Your task to perform on an android device: Open calendar and show me the fourth week of next month Image 0: 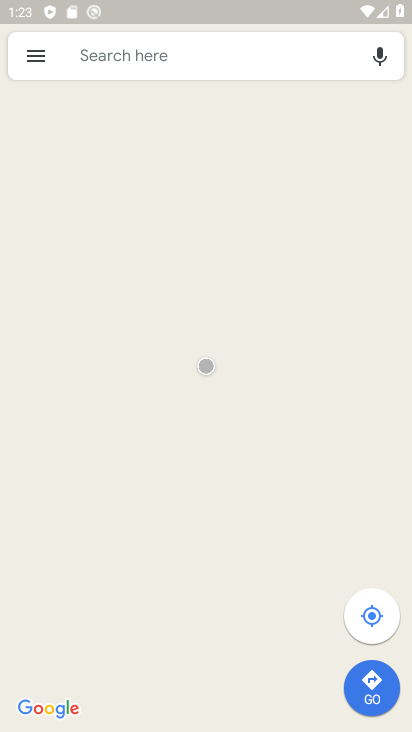
Step 0: press back button
Your task to perform on an android device: Open calendar and show me the fourth week of next month Image 1: 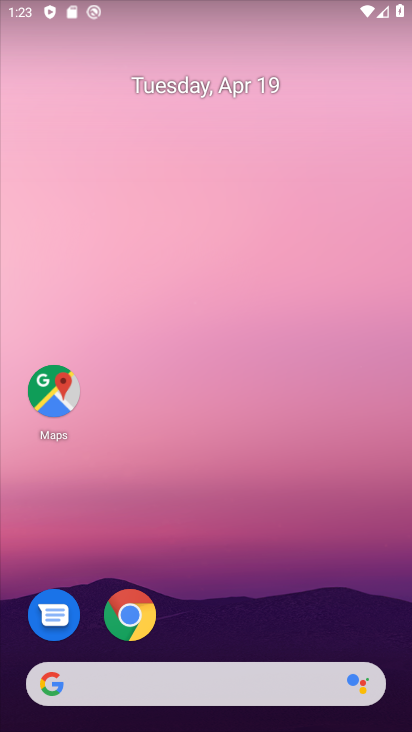
Step 1: drag from (190, 656) to (348, 56)
Your task to perform on an android device: Open calendar and show me the fourth week of next month Image 2: 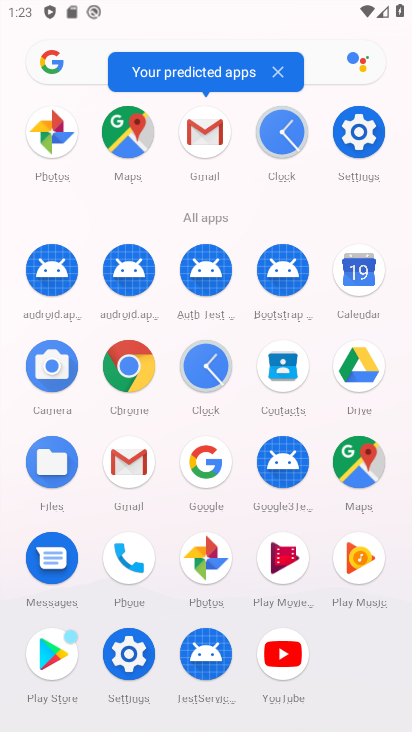
Step 2: click (363, 272)
Your task to perform on an android device: Open calendar and show me the fourth week of next month Image 3: 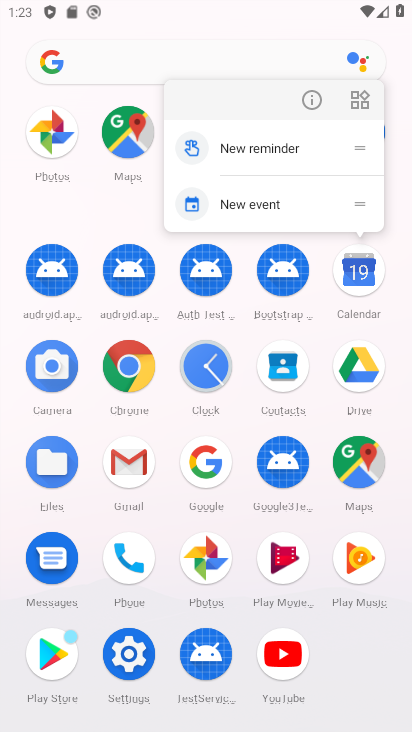
Step 3: click (352, 290)
Your task to perform on an android device: Open calendar and show me the fourth week of next month Image 4: 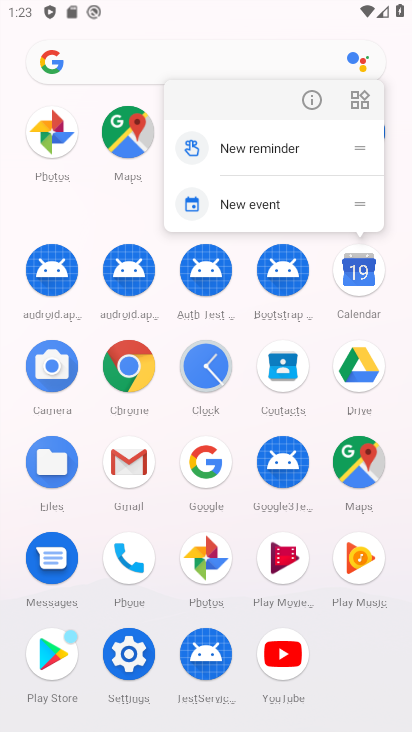
Step 4: click (347, 263)
Your task to perform on an android device: Open calendar and show me the fourth week of next month Image 5: 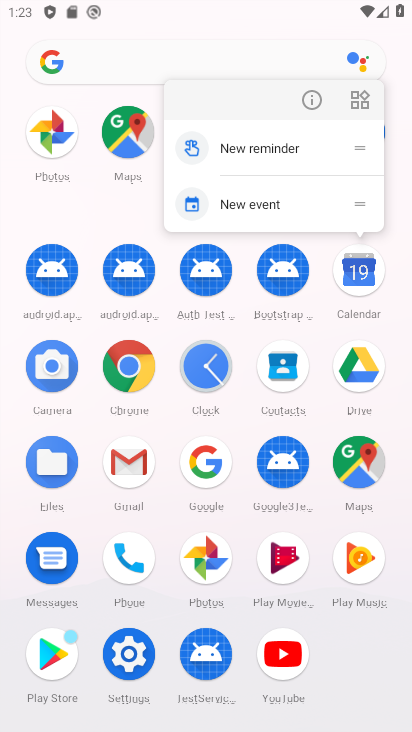
Step 5: click (355, 265)
Your task to perform on an android device: Open calendar and show me the fourth week of next month Image 6: 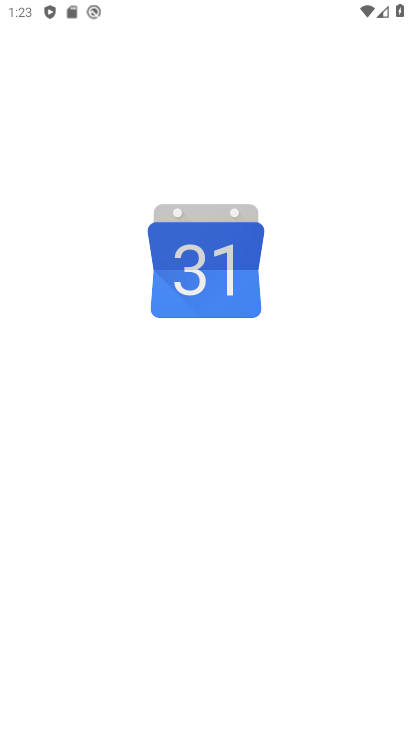
Step 6: click (364, 277)
Your task to perform on an android device: Open calendar and show me the fourth week of next month Image 7: 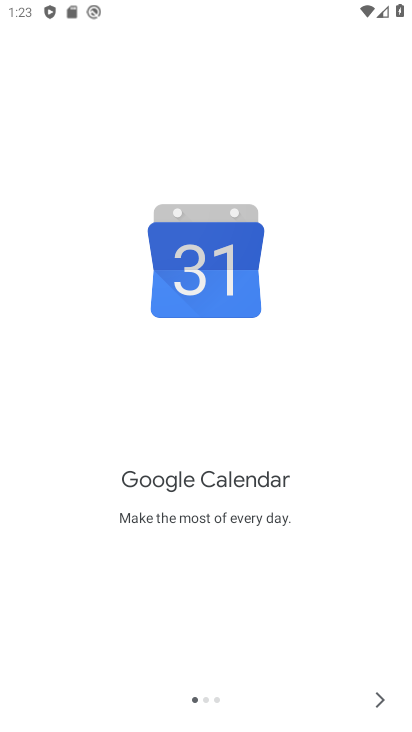
Step 7: click (397, 696)
Your task to perform on an android device: Open calendar and show me the fourth week of next month Image 8: 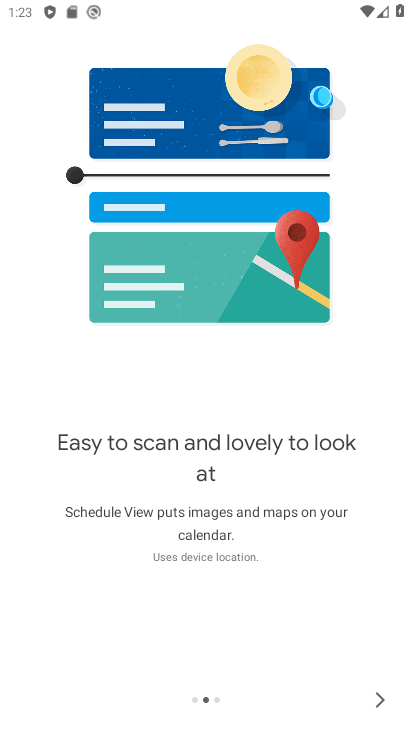
Step 8: click (385, 696)
Your task to perform on an android device: Open calendar and show me the fourth week of next month Image 9: 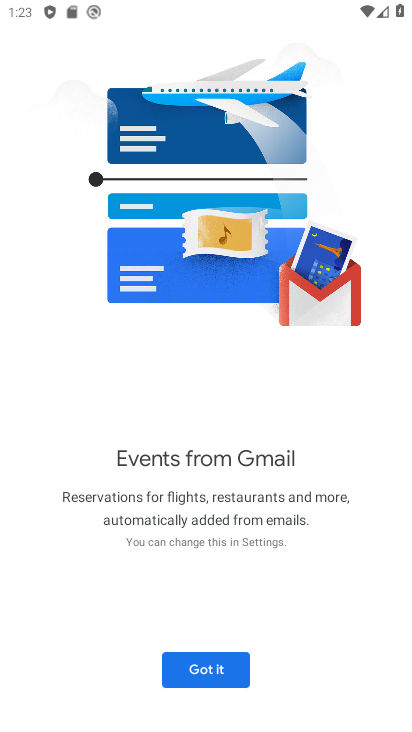
Step 9: click (225, 673)
Your task to perform on an android device: Open calendar and show me the fourth week of next month Image 10: 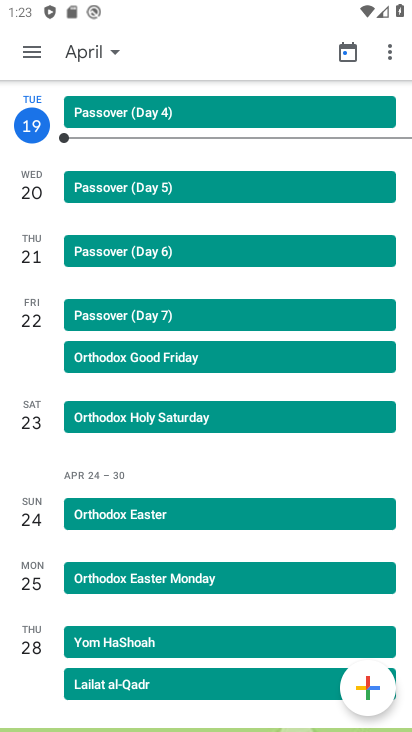
Step 10: click (37, 52)
Your task to perform on an android device: Open calendar and show me the fourth week of next month Image 11: 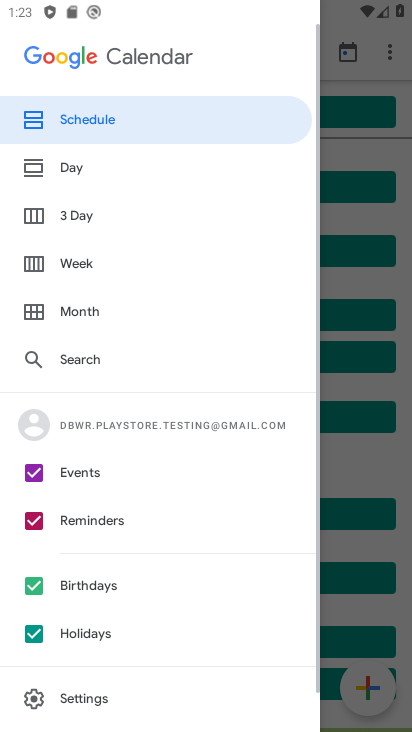
Step 11: click (101, 270)
Your task to perform on an android device: Open calendar and show me the fourth week of next month Image 12: 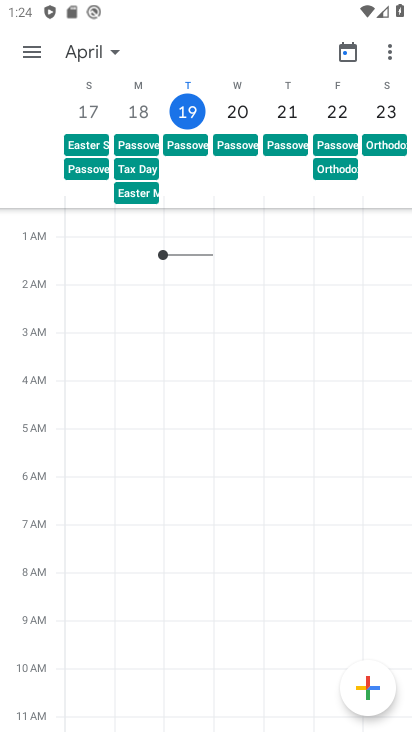
Step 12: click (92, 59)
Your task to perform on an android device: Open calendar and show me the fourth week of next month Image 13: 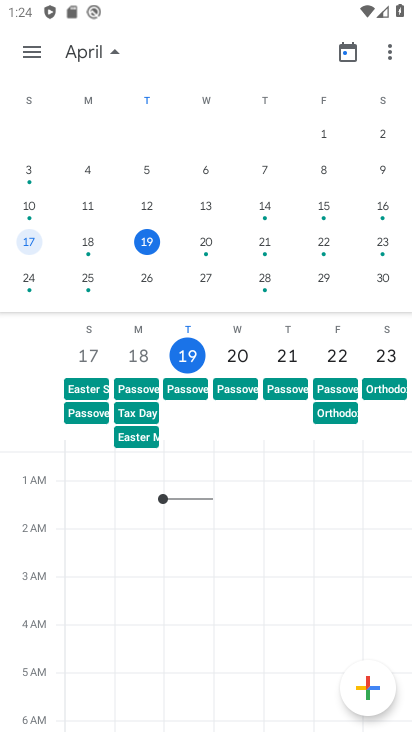
Step 13: drag from (320, 242) to (12, 206)
Your task to perform on an android device: Open calendar and show me the fourth week of next month Image 14: 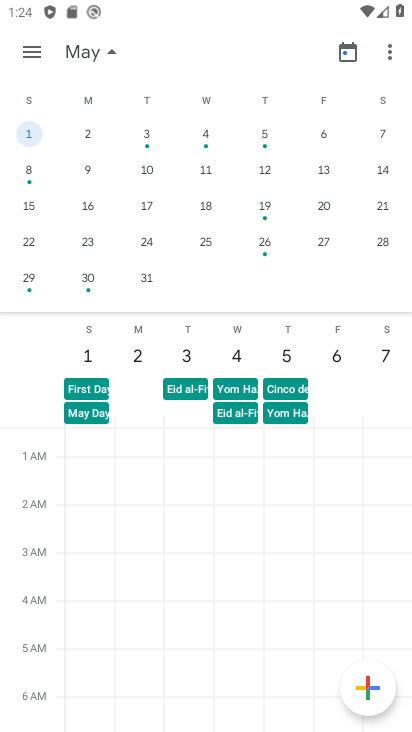
Step 14: click (32, 246)
Your task to perform on an android device: Open calendar and show me the fourth week of next month Image 15: 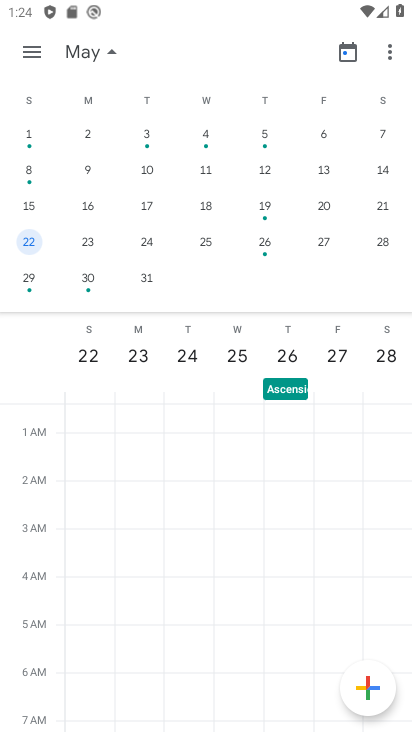
Step 15: click (97, 54)
Your task to perform on an android device: Open calendar and show me the fourth week of next month Image 16: 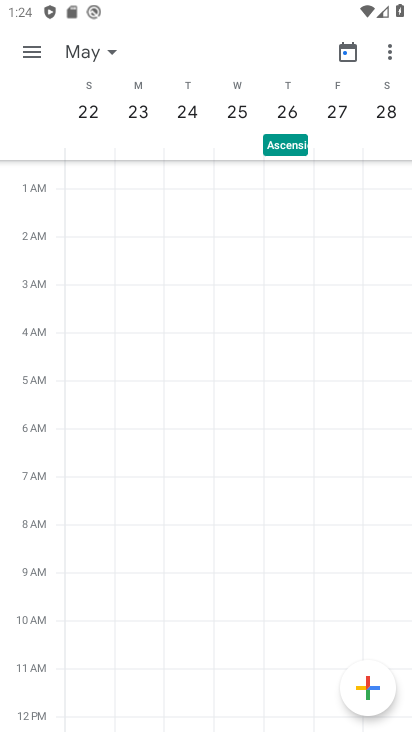
Step 16: task complete